Your task to perform on an android device: open app "LinkedIn" (install if not already installed) and enter user name: "dirt@inbox.com" and password: "receptionist" Image 0: 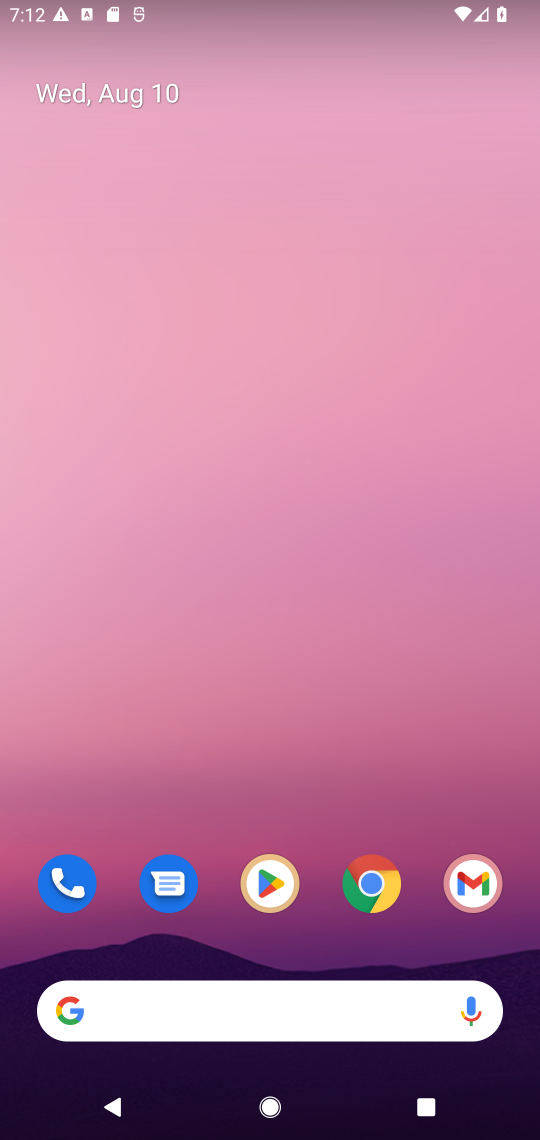
Step 0: drag from (340, 952) to (323, 115)
Your task to perform on an android device: open app "LinkedIn" (install if not already installed) and enter user name: "dirt@inbox.com" and password: "receptionist" Image 1: 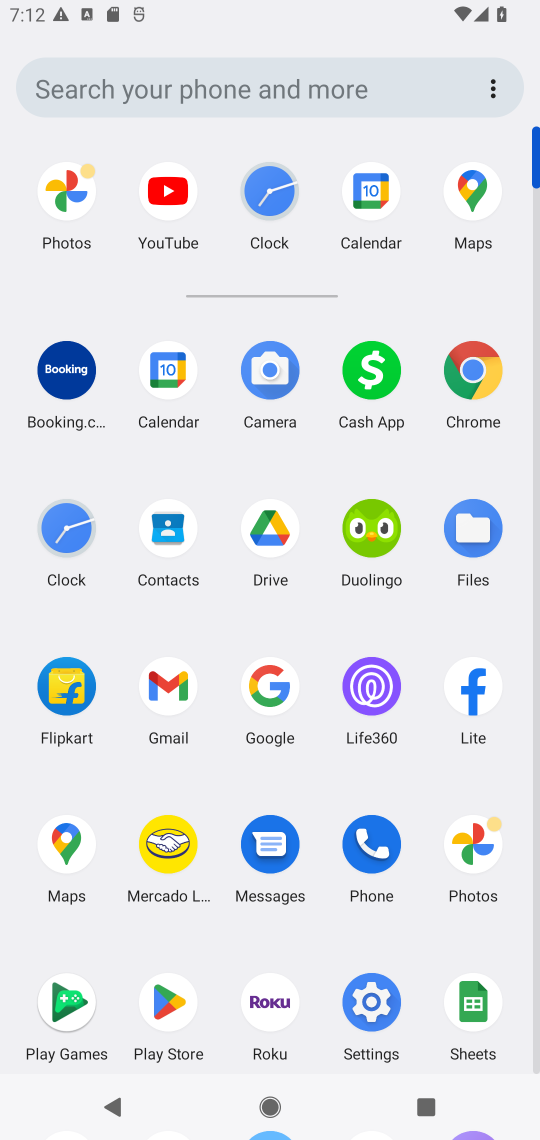
Step 1: click (169, 973)
Your task to perform on an android device: open app "LinkedIn" (install if not already installed) and enter user name: "dirt@inbox.com" and password: "receptionist" Image 2: 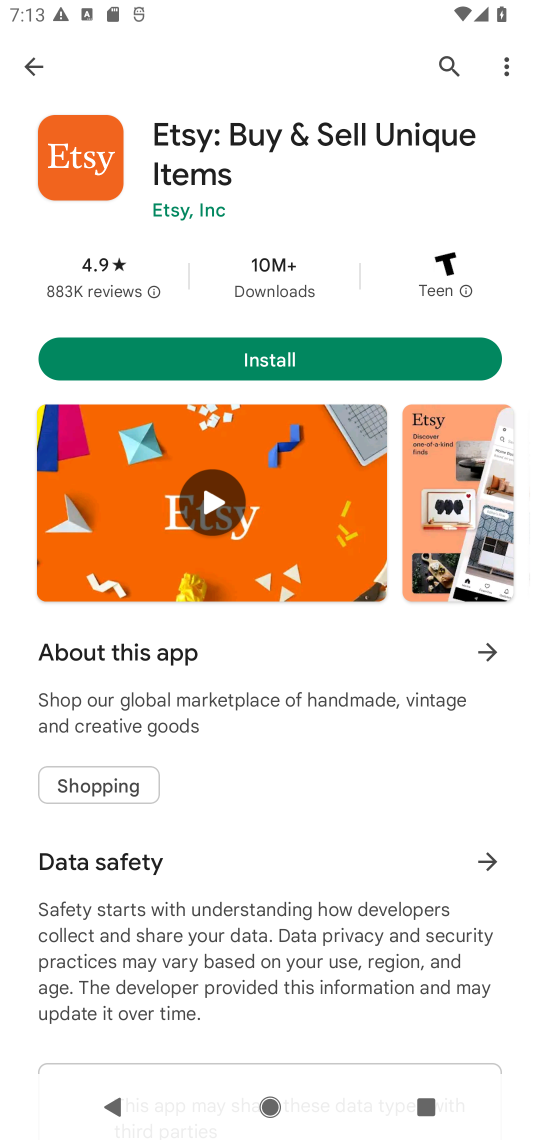
Step 2: click (450, 64)
Your task to perform on an android device: open app "LinkedIn" (install if not already installed) and enter user name: "dirt@inbox.com" and password: "receptionist" Image 3: 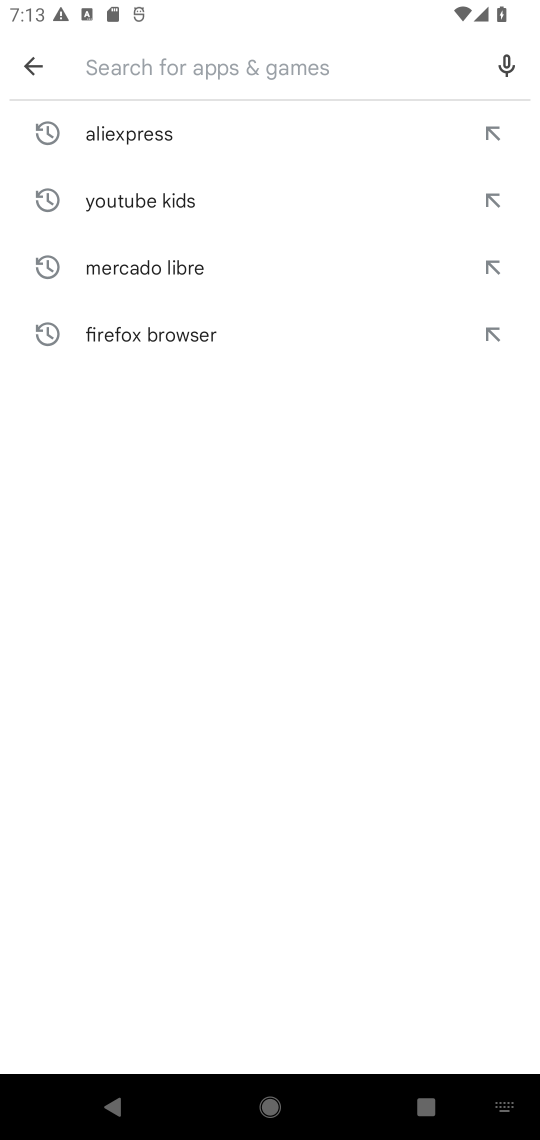
Step 3: type "LinkedIn"
Your task to perform on an android device: open app "LinkedIn" (install if not already installed) and enter user name: "dirt@inbox.com" and password: "receptionist" Image 4: 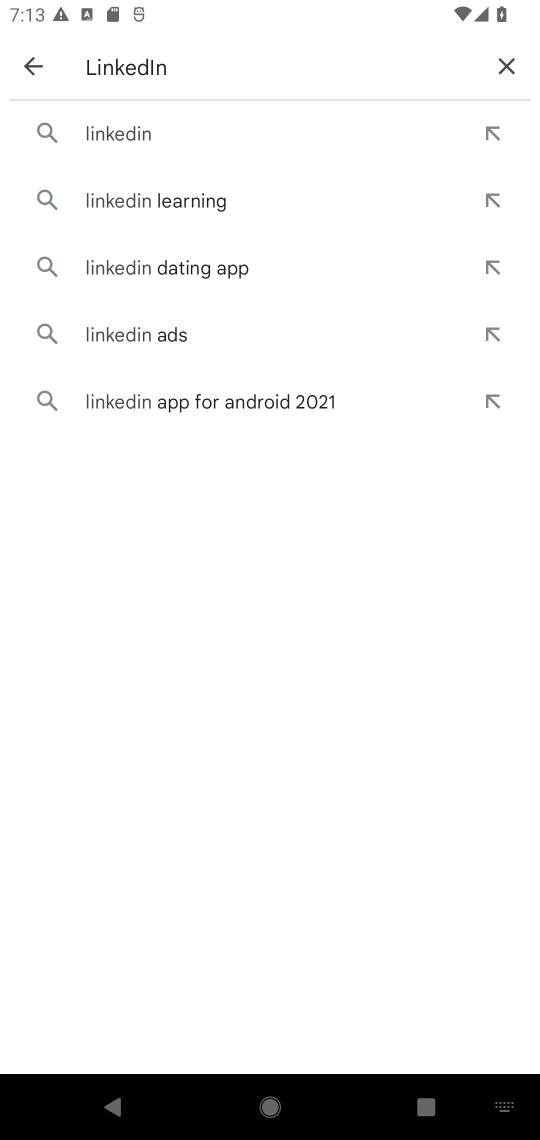
Step 4: click (105, 127)
Your task to perform on an android device: open app "LinkedIn" (install if not already installed) and enter user name: "dirt@inbox.com" and password: "receptionist" Image 5: 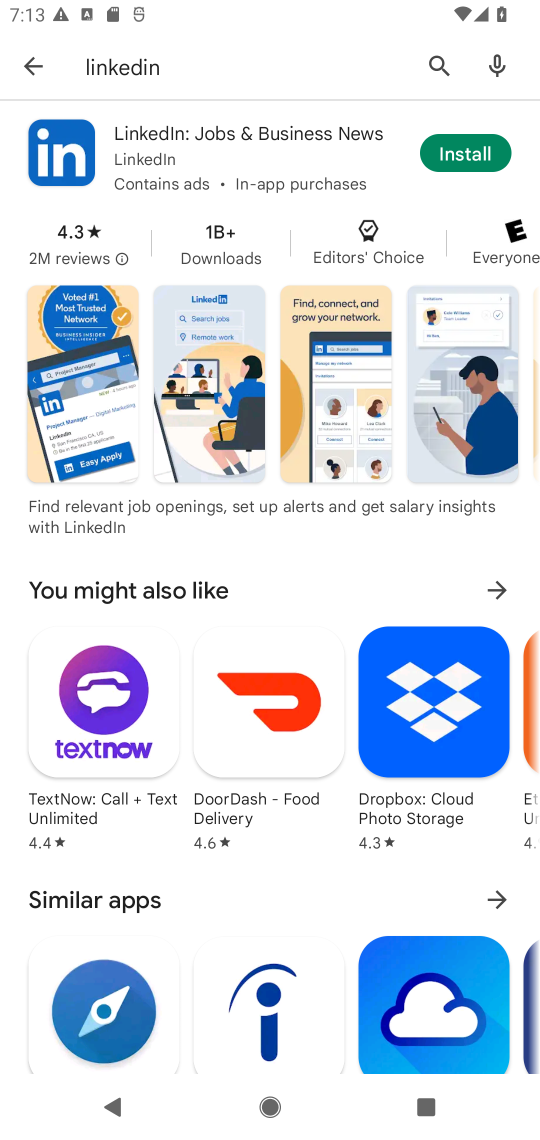
Step 5: click (456, 146)
Your task to perform on an android device: open app "LinkedIn" (install if not already installed) and enter user name: "dirt@inbox.com" and password: "receptionist" Image 6: 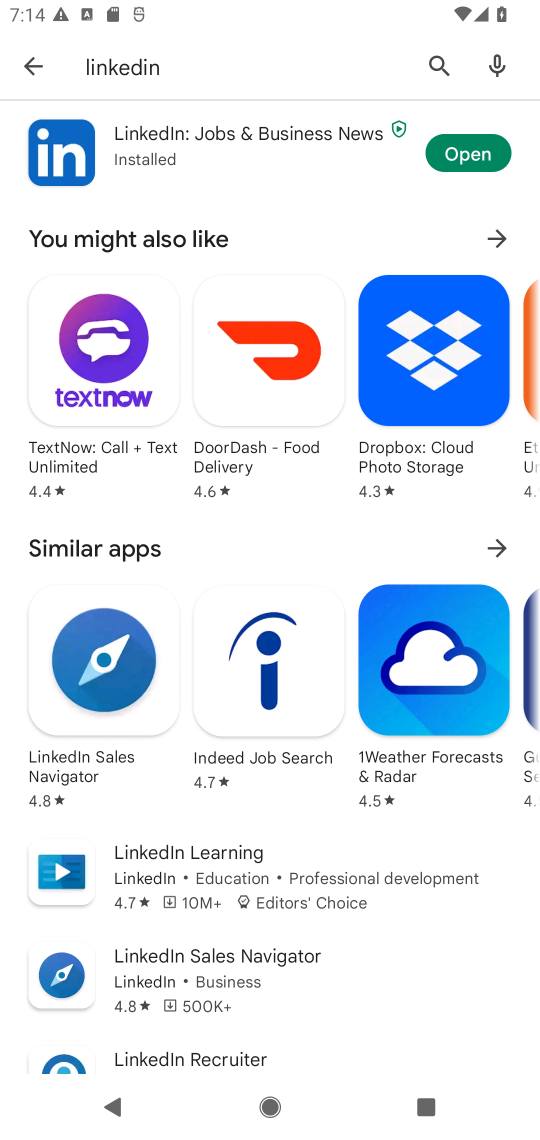
Step 6: click (480, 154)
Your task to perform on an android device: open app "LinkedIn" (install if not already installed) and enter user name: "dirt@inbox.com" and password: "receptionist" Image 7: 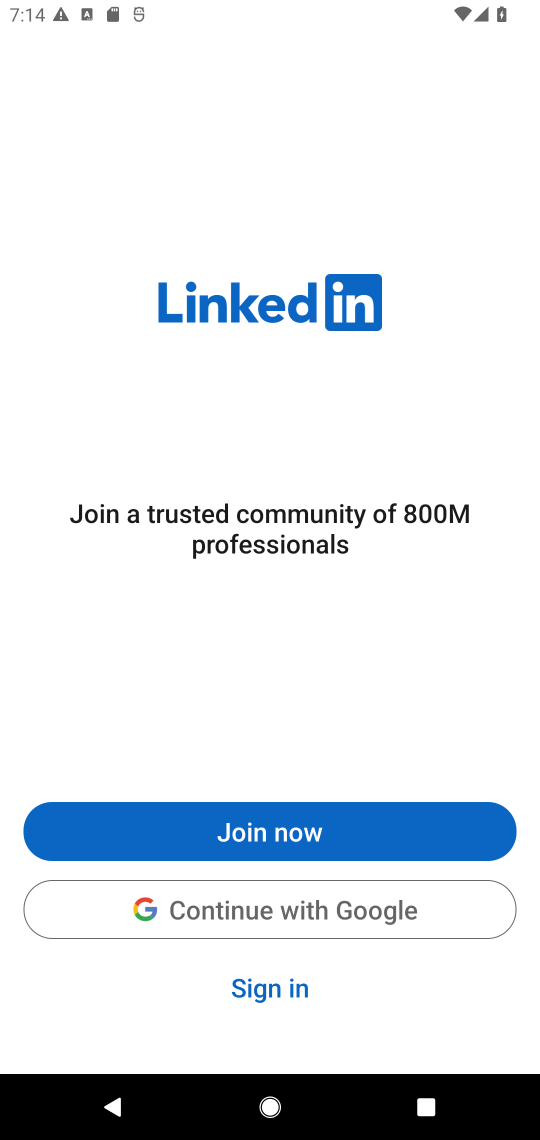
Step 7: click (276, 985)
Your task to perform on an android device: open app "LinkedIn" (install if not already installed) and enter user name: "dirt@inbox.com" and password: "receptionist" Image 8: 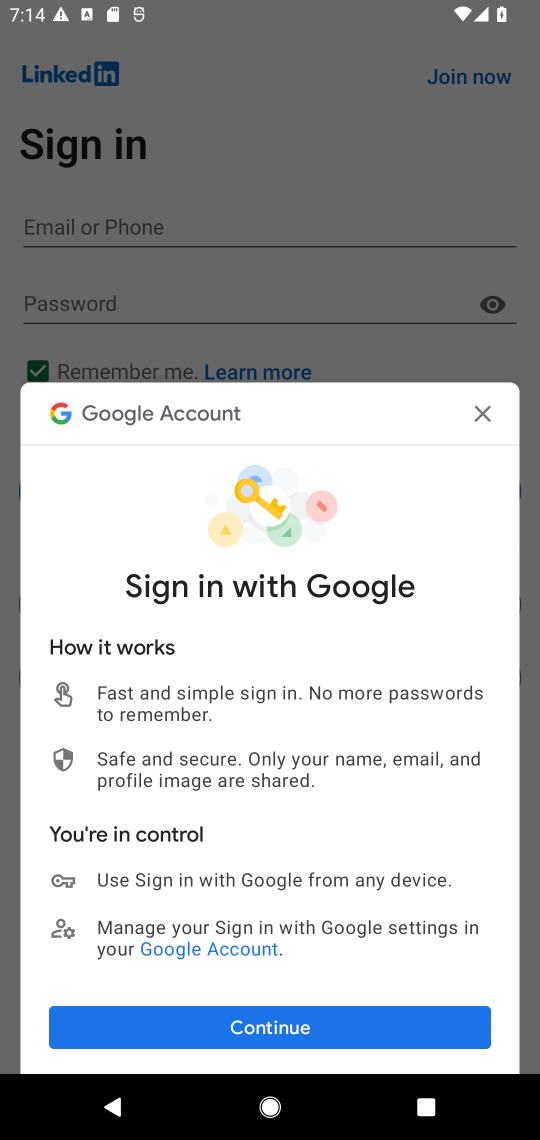
Step 8: click (280, 1035)
Your task to perform on an android device: open app "LinkedIn" (install if not already installed) and enter user name: "dirt@inbox.com" and password: "receptionist" Image 9: 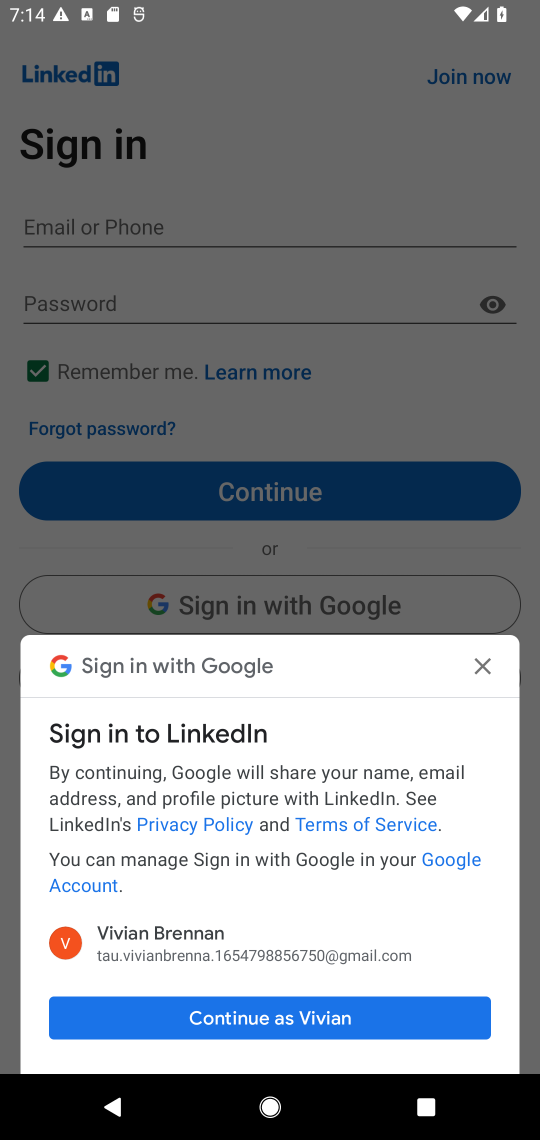
Step 9: click (482, 662)
Your task to perform on an android device: open app "LinkedIn" (install if not already installed) and enter user name: "dirt@inbox.com" and password: "receptionist" Image 10: 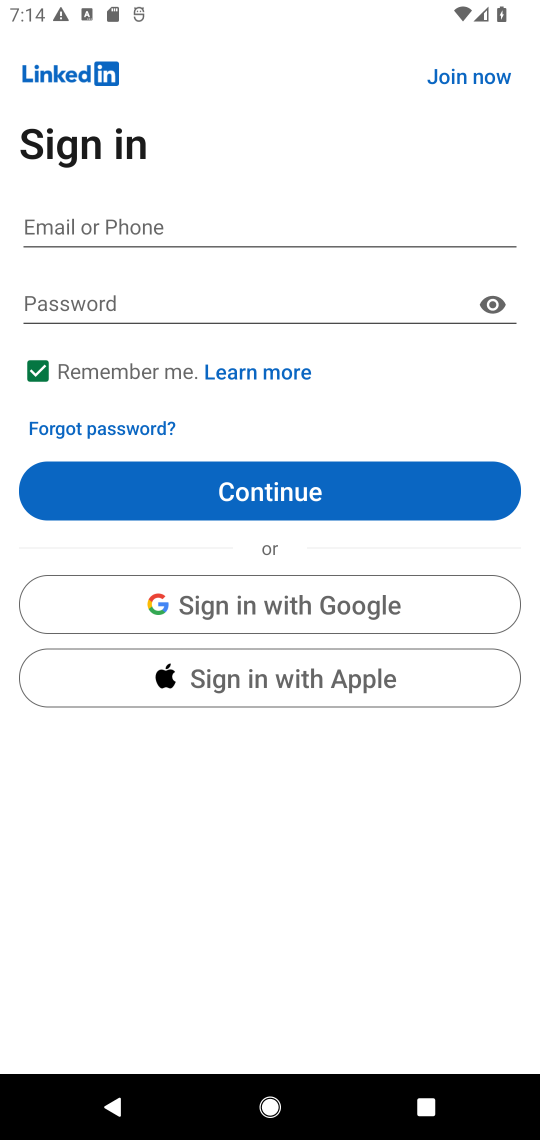
Step 10: click (186, 224)
Your task to perform on an android device: open app "LinkedIn" (install if not already installed) and enter user name: "dirt@inbox.com" and password: "receptionist" Image 11: 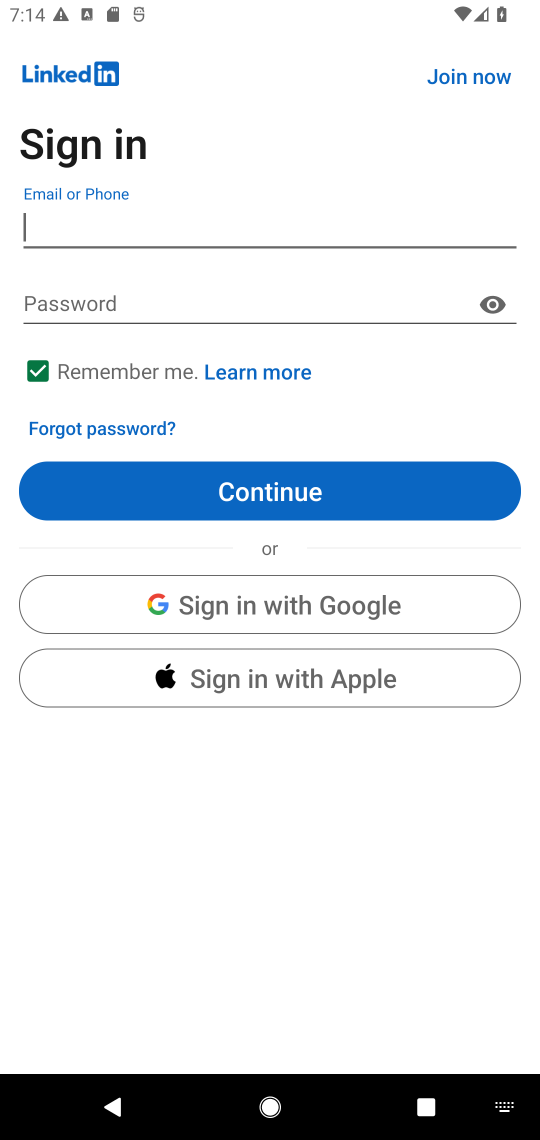
Step 11: type "dirt@inbox.com"
Your task to perform on an android device: open app "LinkedIn" (install if not already installed) and enter user name: "dirt@inbox.com" and password: "receptionist" Image 12: 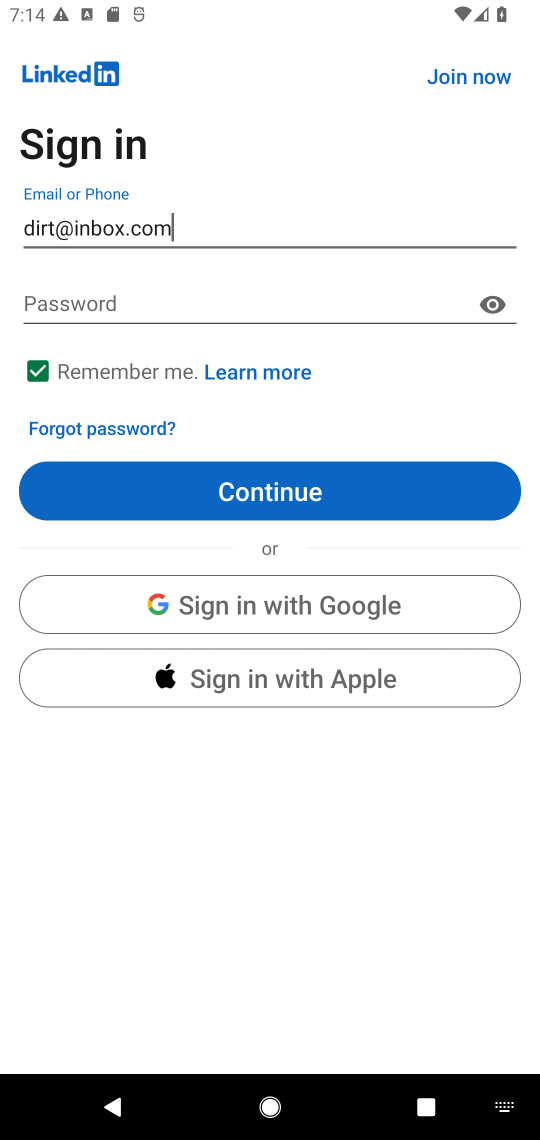
Step 12: click (152, 292)
Your task to perform on an android device: open app "LinkedIn" (install if not already installed) and enter user name: "dirt@inbox.com" and password: "receptionist" Image 13: 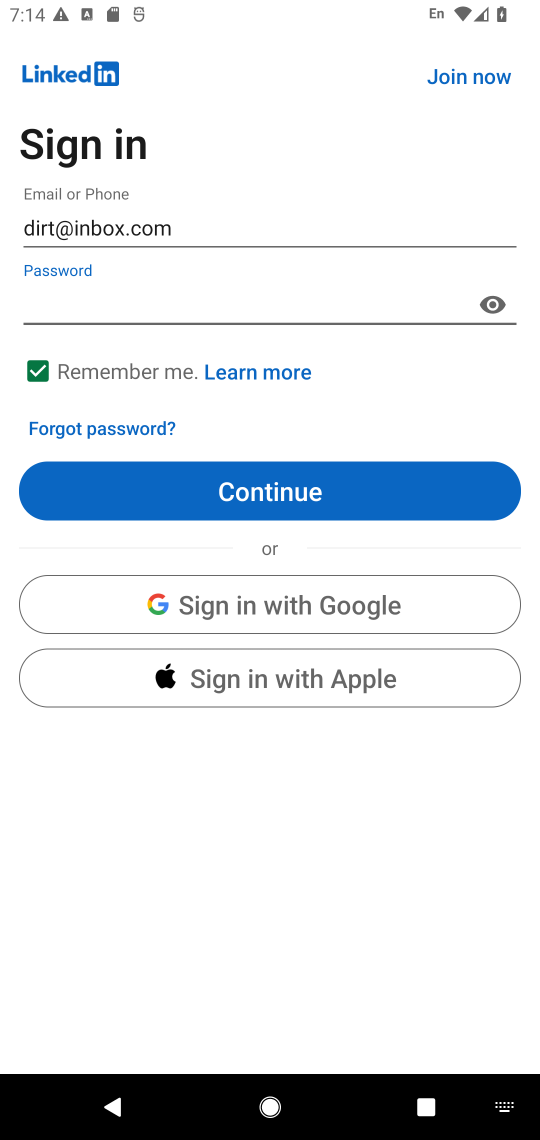
Step 13: type "receptionist"
Your task to perform on an android device: open app "LinkedIn" (install if not already installed) and enter user name: "dirt@inbox.com" and password: "receptionist" Image 14: 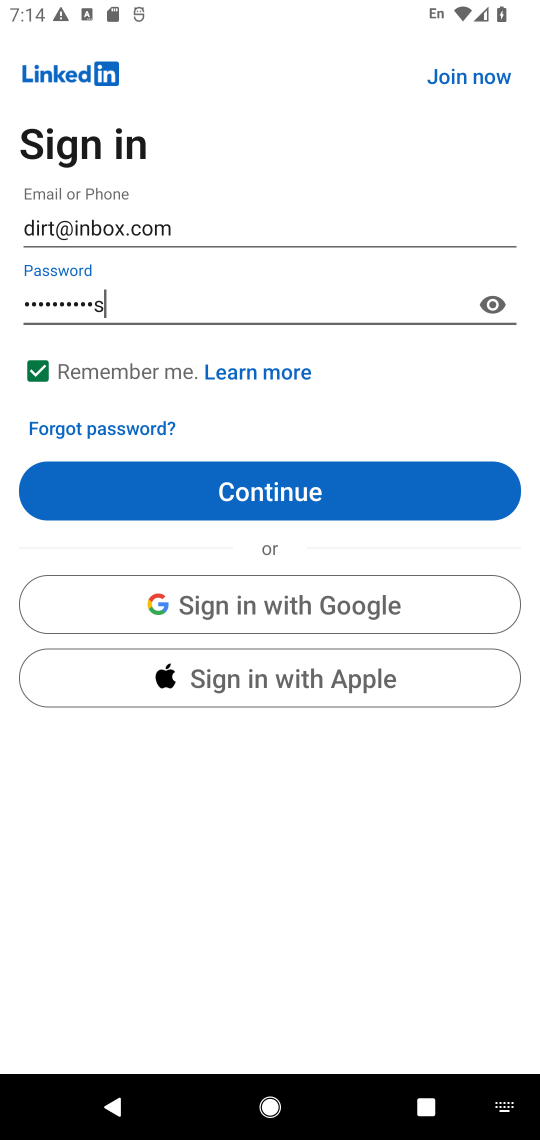
Step 14: type ""
Your task to perform on an android device: open app "LinkedIn" (install if not already installed) and enter user name: "dirt@inbox.com" and password: "receptionist" Image 15: 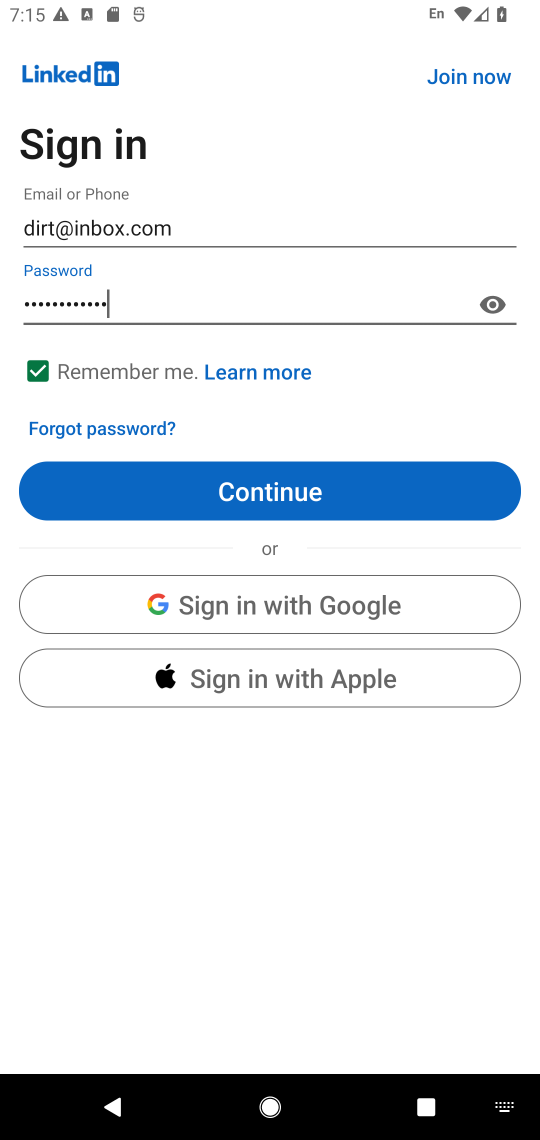
Step 15: task complete